Your task to perform on an android device: open wifi settings Image 0: 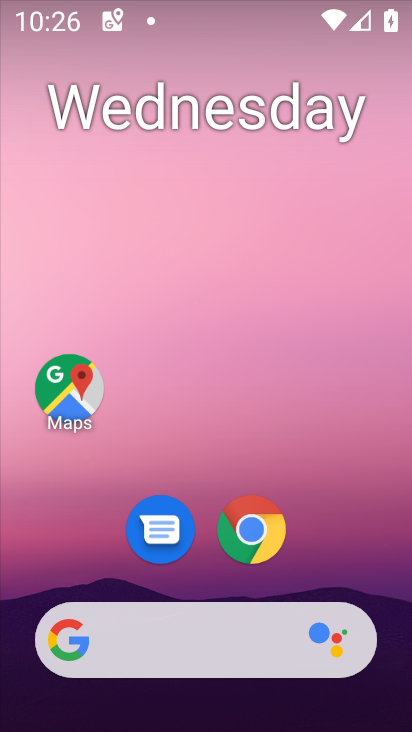
Step 0: drag from (387, 622) to (263, 106)
Your task to perform on an android device: open wifi settings Image 1: 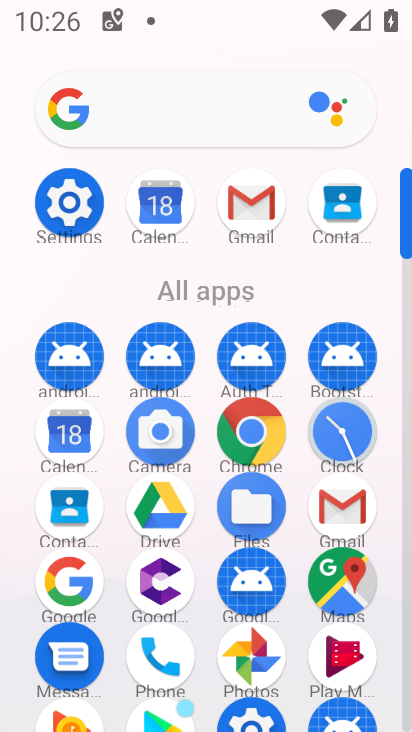
Step 1: click (410, 711)
Your task to perform on an android device: open wifi settings Image 2: 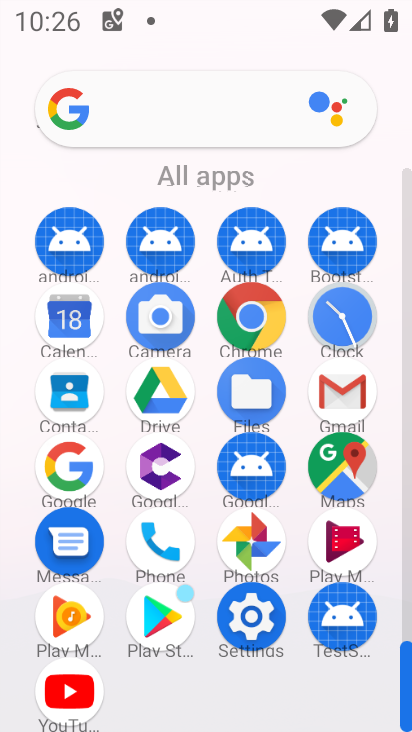
Step 2: click (248, 617)
Your task to perform on an android device: open wifi settings Image 3: 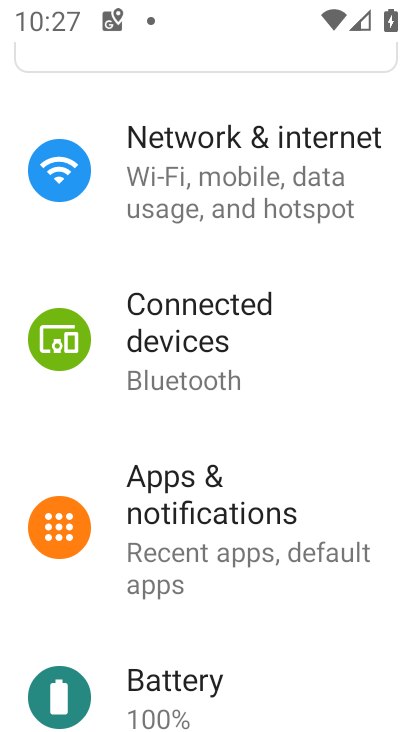
Step 3: click (209, 150)
Your task to perform on an android device: open wifi settings Image 4: 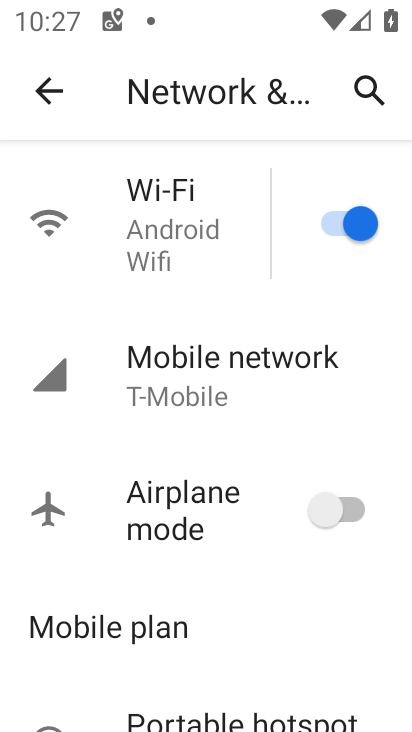
Step 4: click (112, 221)
Your task to perform on an android device: open wifi settings Image 5: 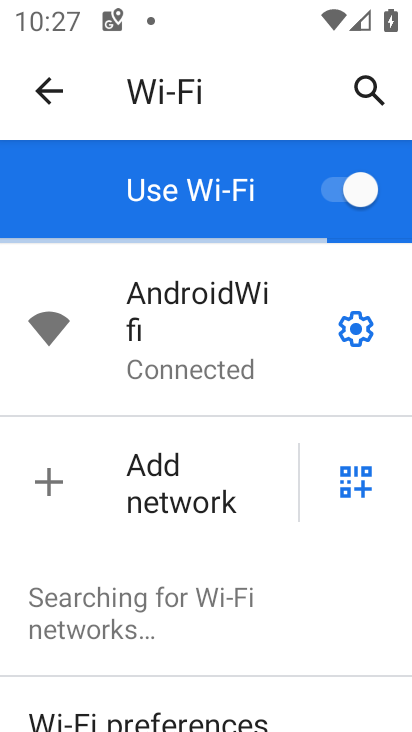
Step 5: drag from (234, 614) to (210, 377)
Your task to perform on an android device: open wifi settings Image 6: 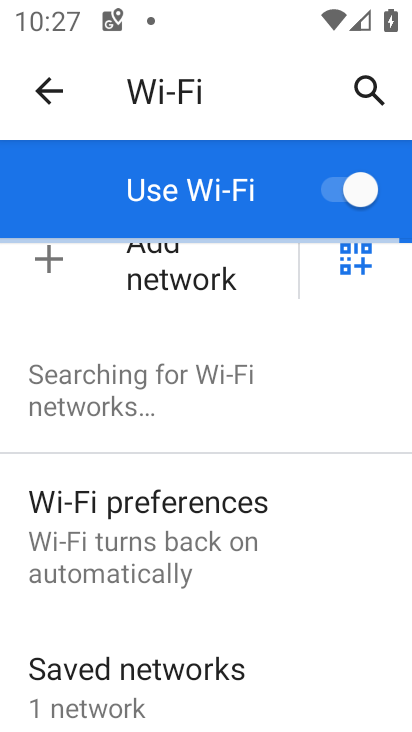
Step 6: drag from (233, 616) to (211, 282)
Your task to perform on an android device: open wifi settings Image 7: 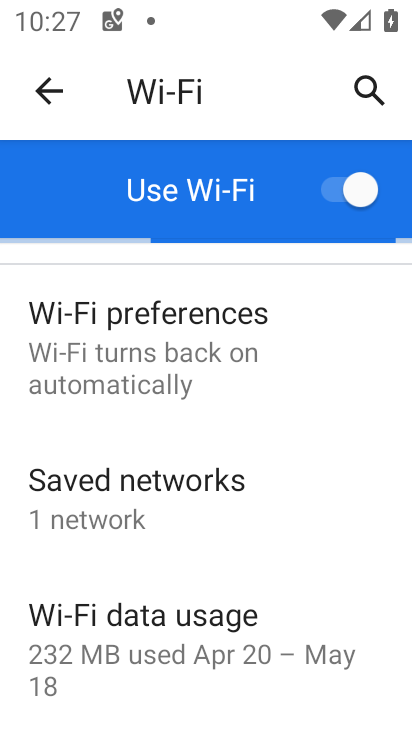
Step 7: drag from (249, 581) to (217, 302)
Your task to perform on an android device: open wifi settings Image 8: 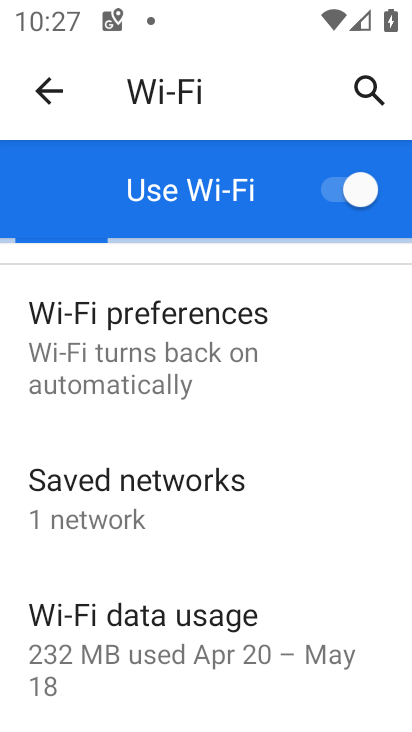
Step 8: drag from (216, 311) to (209, 612)
Your task to perform on an android device: open wifi settings Image 9: 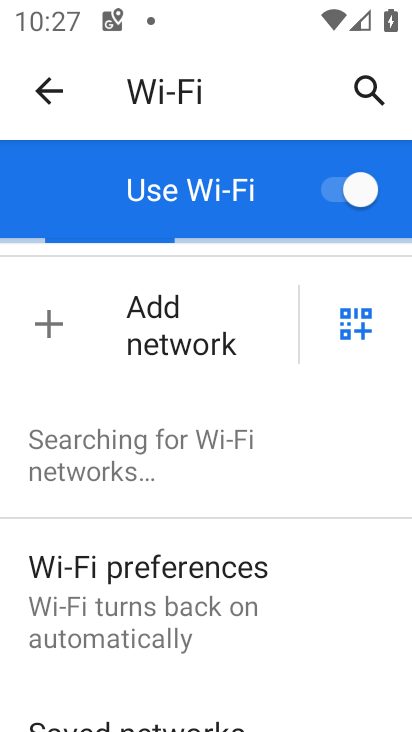
Step 9: drag from (236, 372) to (190, 671)
Your task to perform on an android device: open wifi settings Image 10: 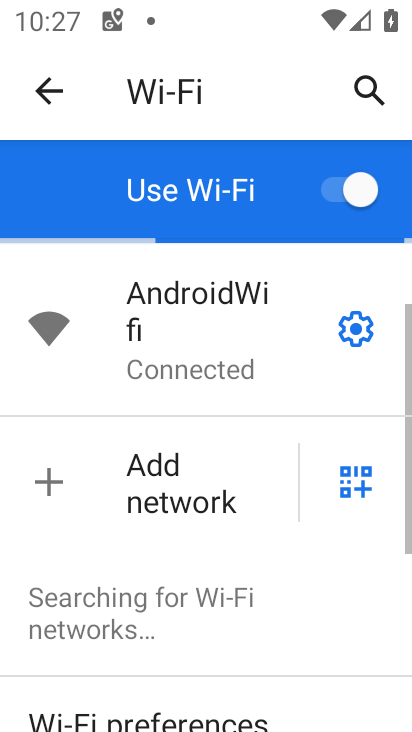
Step 10: click (349, 322)
Your task to perform on an android device: open wifi settings Image 11: 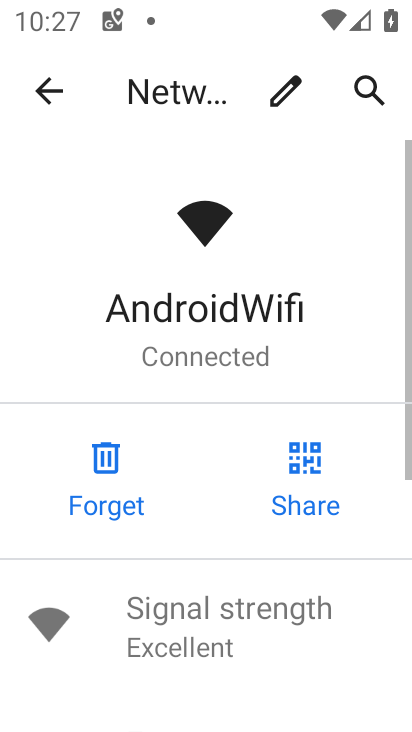
Step 11: drag from (236, 591) to (180, 263)
Your task to perform on an android device: open wifi settings Image 12: 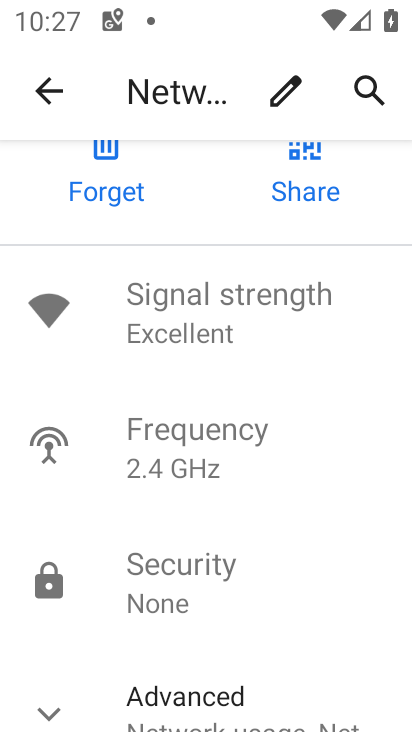
Step 12: drag from (196, 620) to (158, 287)
Your task to perform on an android device: open wifi settings Image 13: 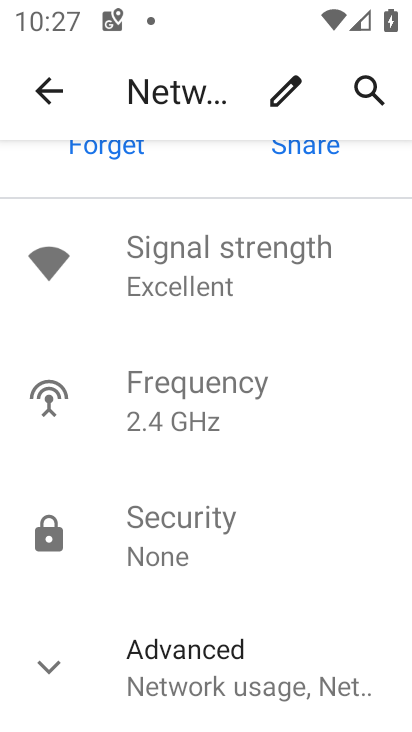
Step 13: click (45, 656)
Your task to perform on an android device: open wifi settings Image 14: 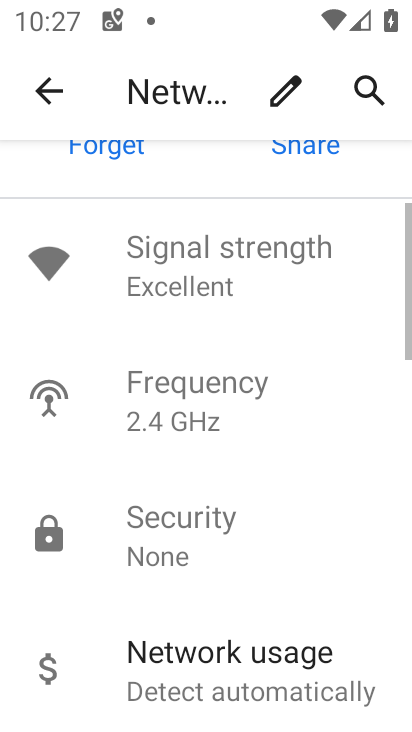
Step 14: task complete